Your task to perform on an android device: Open sound settings Image 0: 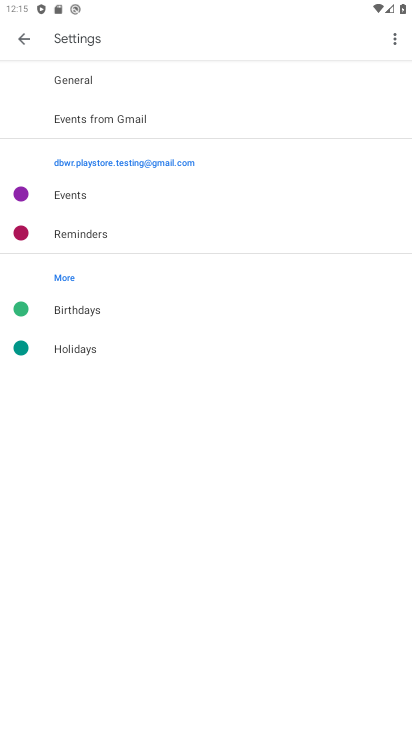
Step 0: drag from (222, 729) to (222, 159)
Your task to perform on an android device: Open sound settings Image 1: 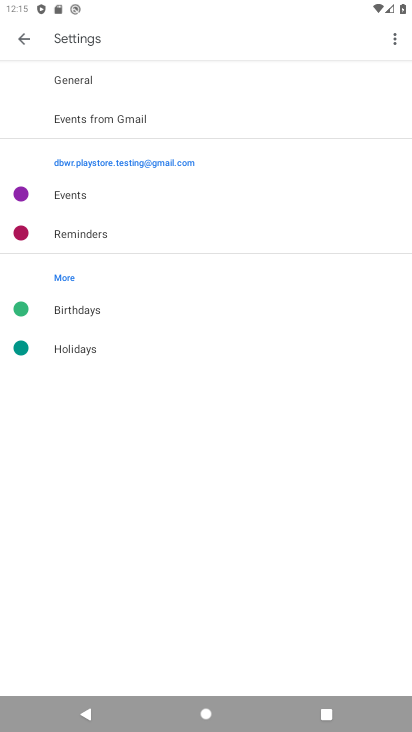
Step 1: press home button
Your task to perform on an android device: Open sound settings Image 2: 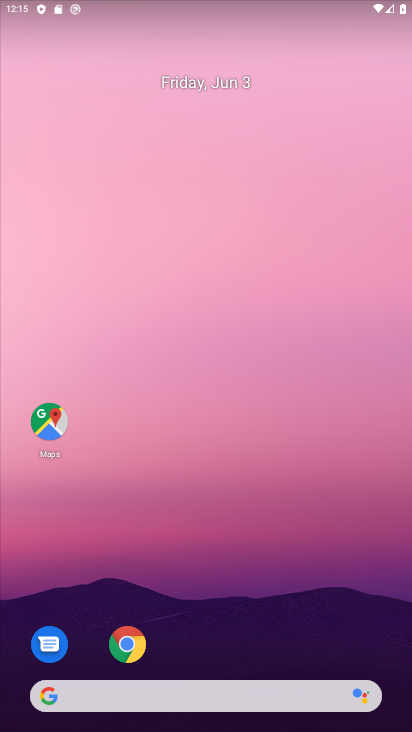
Step 2: drag from (232, 699) to (234, 84)
Your task to perform on an android device: Open sound settings Image 3: 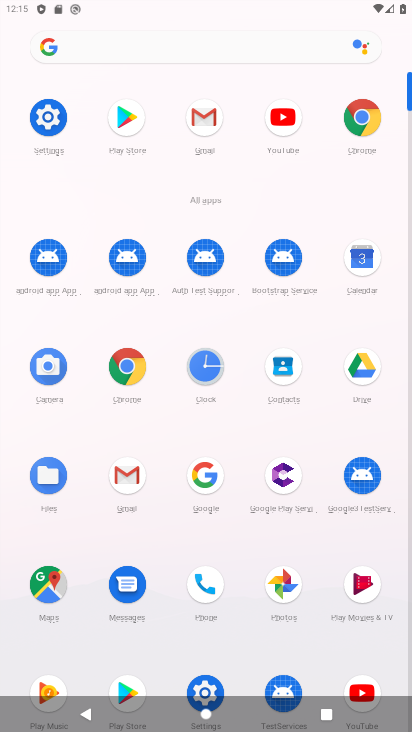
Step 3: click (46, 114)
Your task to perform on an android device: Open sound settings Image 4: 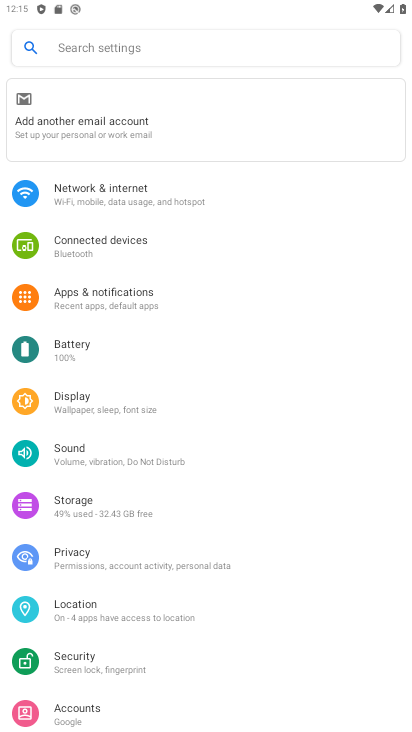
Step 4: click (81, 444)
Your task to perform on an android device: Open sound settings Image 5: 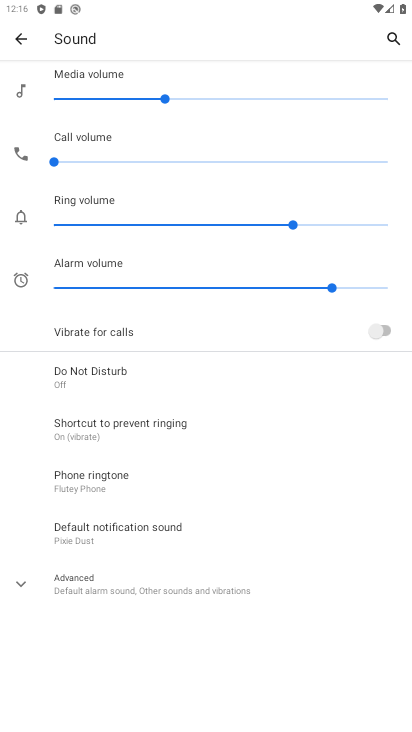
Step 5: task complete